Your task to perform on an android device: Set the phone to "Do not disturb". Image 0: 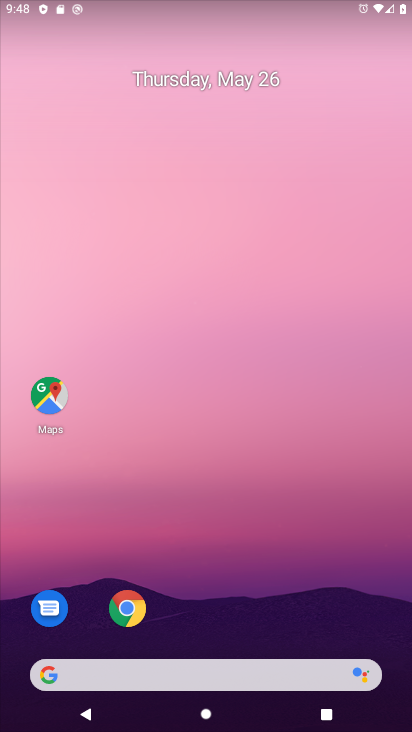
Step 0: drag from (269, 587) to (234, 21)
Your task to perform on an android device: Set the phone to "Do not disturb". Image 1: 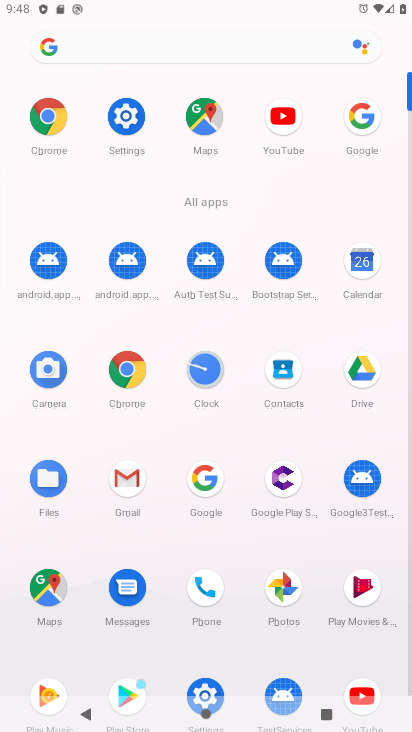
Step 1: click (126, 127)
Your task to perform on an android device: Set the phone to "Do not disturb". Image 2: 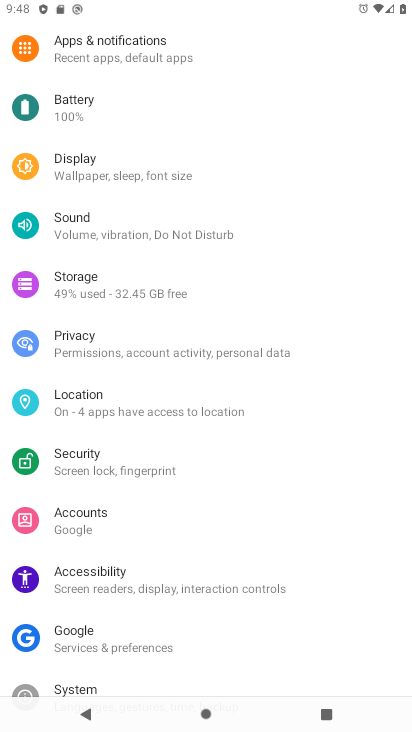
Step 2: click (108, 229)
Your task to perform on an android device: Set the phone to "Do not disturb". Image 3: 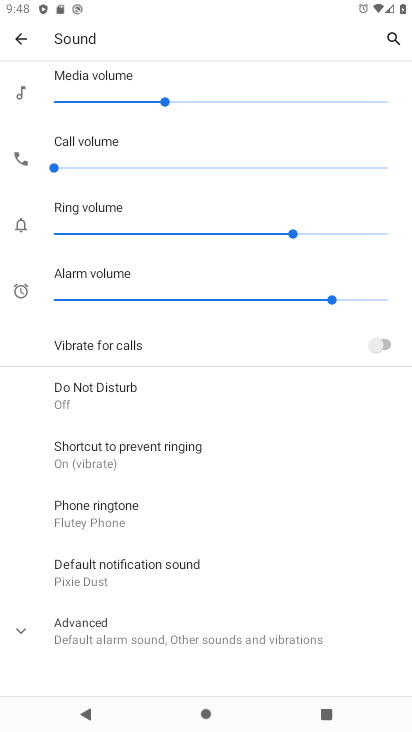
Step 3: click (152, 404)
Your task to perform on an android device: Set the phone to "Do not disturb". Image 4: 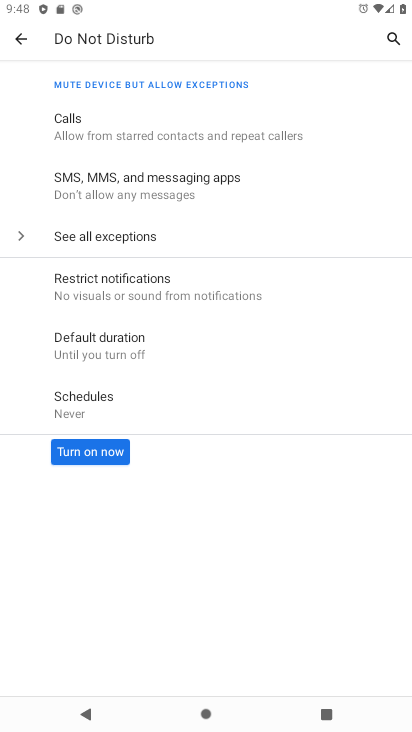
Step 4: click (109, 449)
Your task to perform on an android device: Set the phone to "Do not disturb". Image 5: 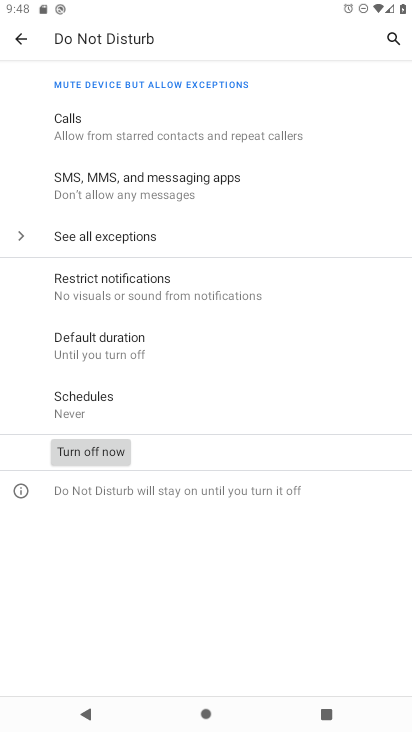
Step 5: task complete